Your task to perform on an android device: Open Chrome and go to settings Image 0: 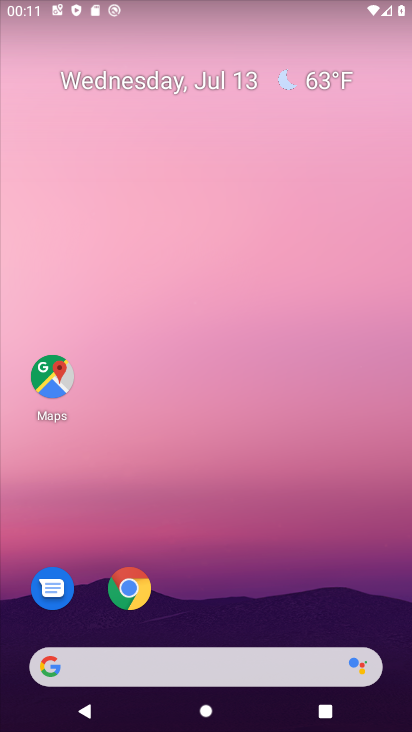
Step 0: click (122, 596)
Your task to perform on an android device: Open Chrome and go to settings Image 1: 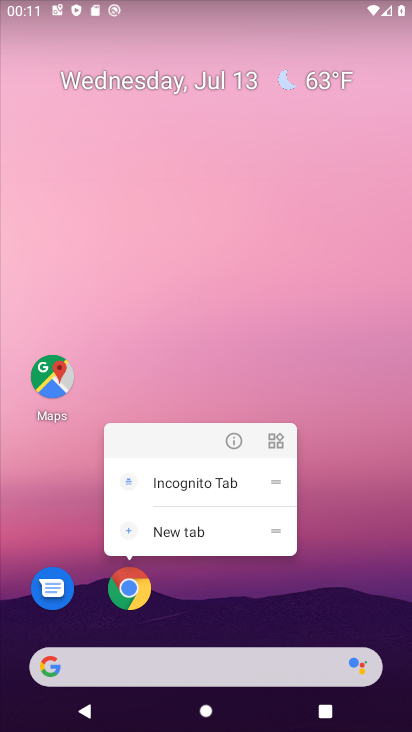
Step 1: click (134, 590)
Your task to perform on an android device: Open Chrome and go to settings Image 2: 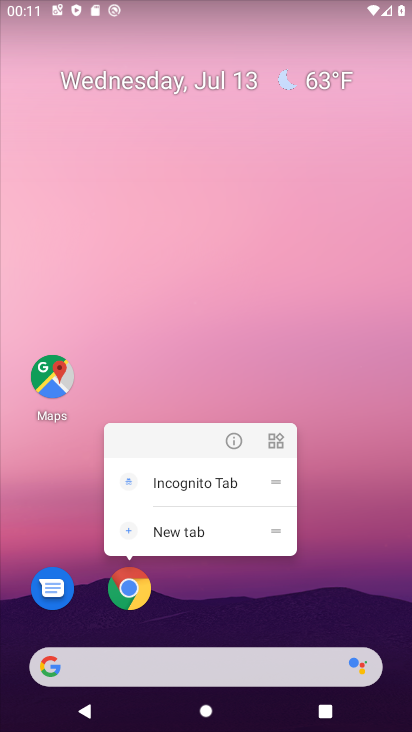
Step 2: click (128, 584)
Your task to perform on an android device: Open Chrome and go to settings Image 3: 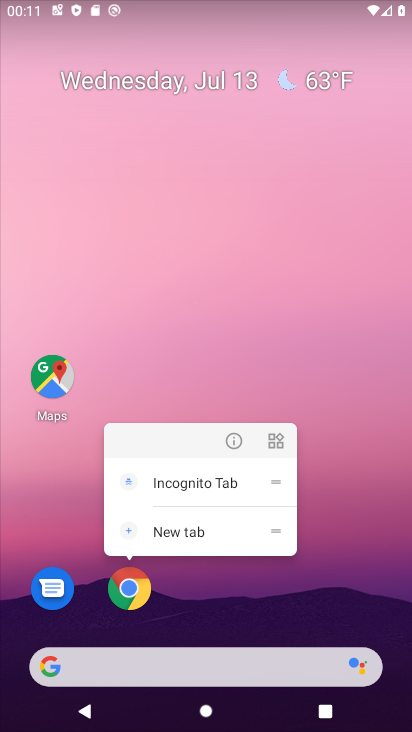
Step 3: click (132, 568)
Your task to perform on an android device: Open Chrome and go to settings Image 4: 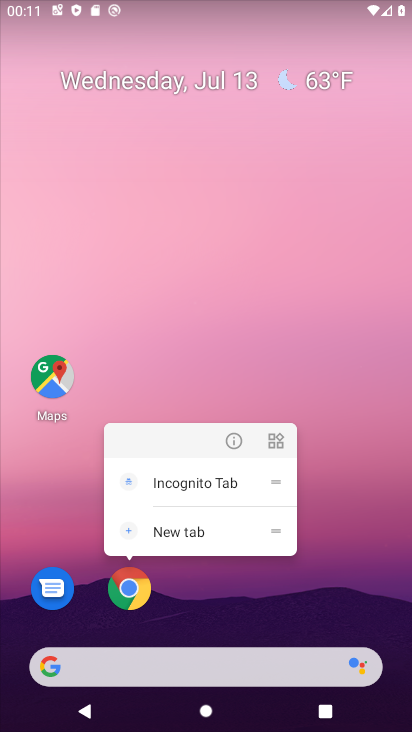
Step 4: click (135, 576)
Your task to perform on an android device: Open Chrome and go to settings Image 5: 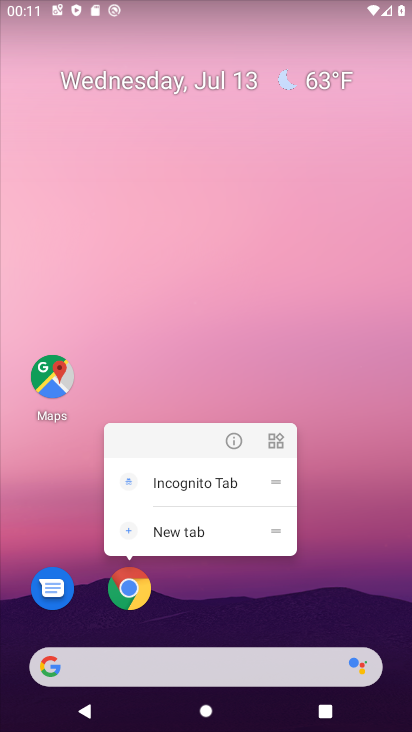
Step 5: task complete